Your task to perform on an android device: change text size in settings app Image 0: 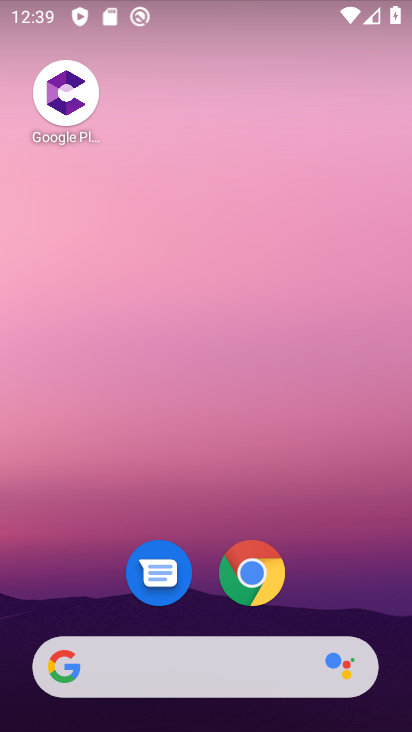
Step 0: press home button
Your task to perform on an android device: change text size in settings app Image 1: 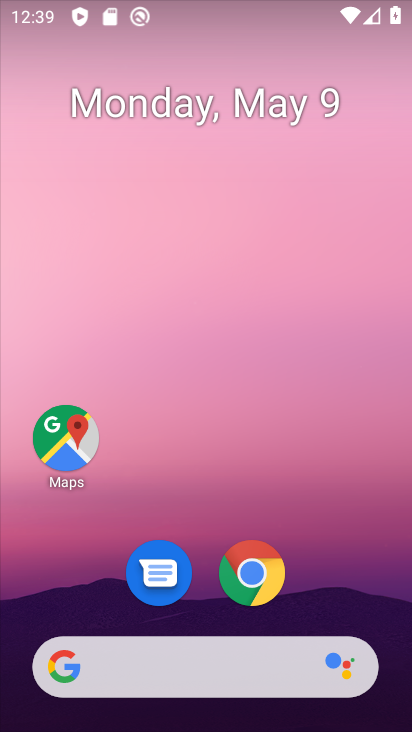
Step 1: drag from (351, 577) to (67, 65)
Your task to perform on an android device: change text size in settings app Image 2: 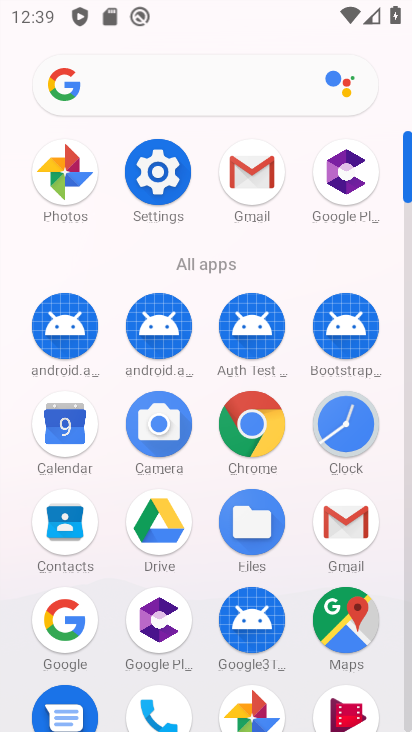
Step 2: click (164, 178)
Your task to perform on an android device: change text size in settings app Image 3: 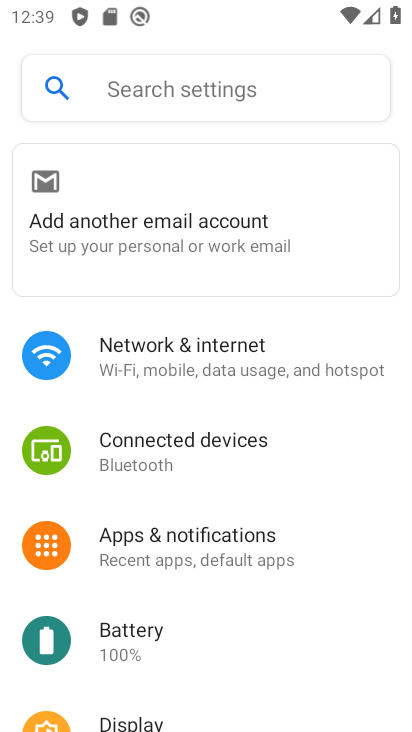
Step 3: drag from (195, 650) to (182, 351)
Your task to perform on an android device: change text size in settings app Image 4: 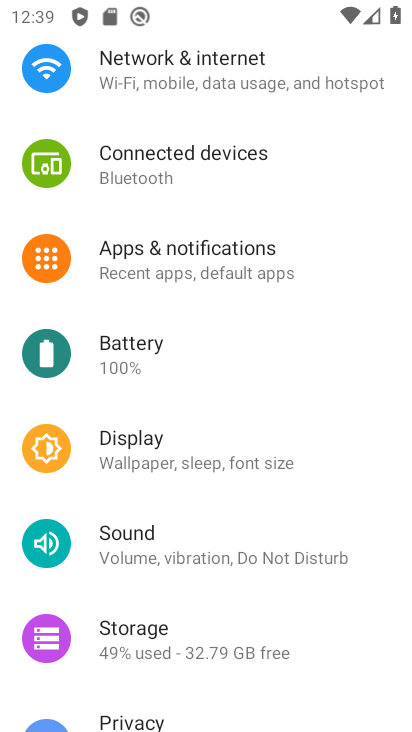
Step 4: click (204, 446)
Your task to perform on an android device: change text size in settings app Image 5: 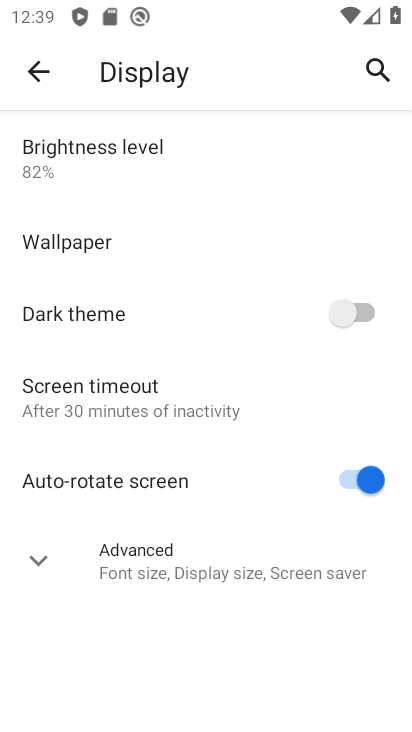
Step 5: click (179, 585)
Your task to perform on an android device: change text size in settings app Image 6: 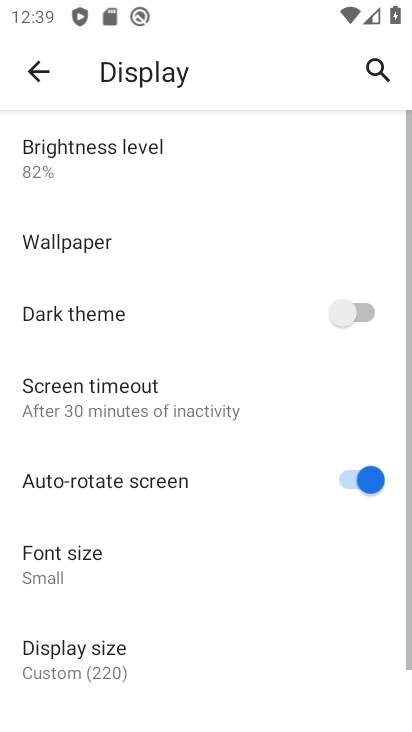
Step 6: click (117, 585)
Your task to perform on an android device: change text size in settings app Image 7: 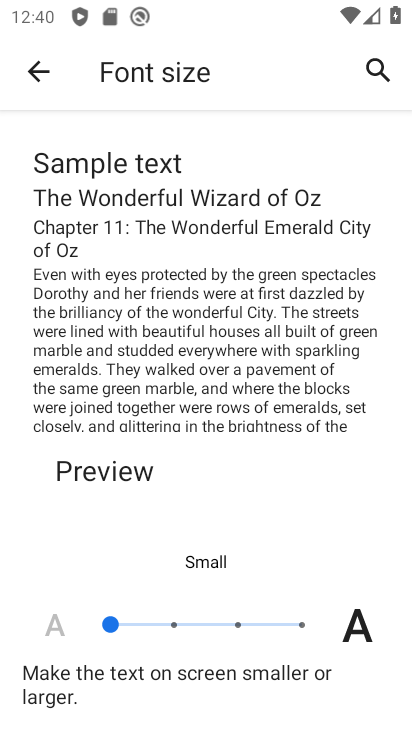
Step 7: click (169, 627)
Your task to perform on an android device: change text size in settings app Image 8: 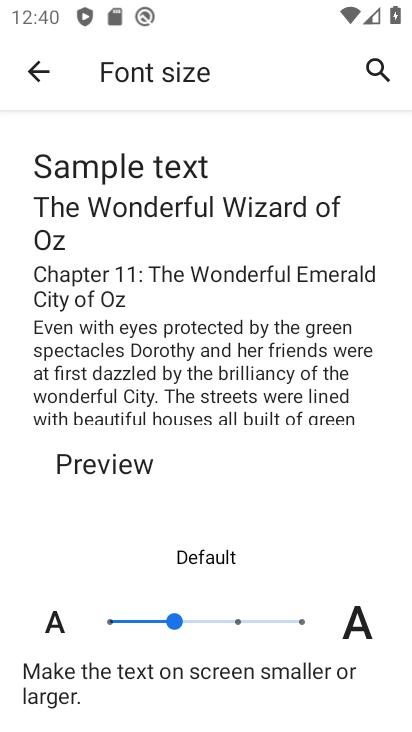
Step 8: task complete